Your task to perform on an android device: Open the stopwatch Image 0: 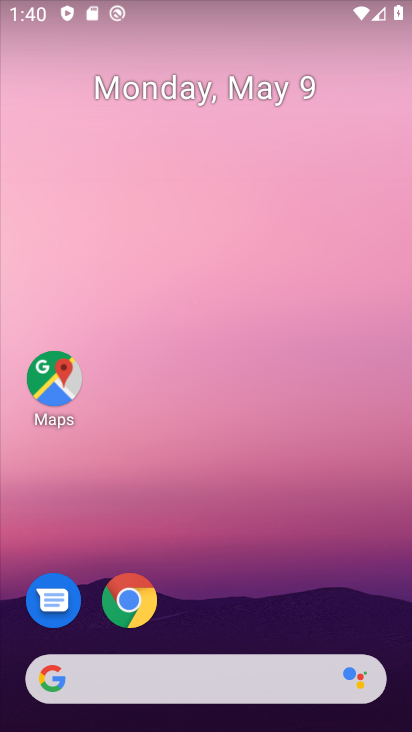
Step 0: drag from (256, 609) to (320, 5)
Your task to perform on an android device: Open the stopwatch Image 1: 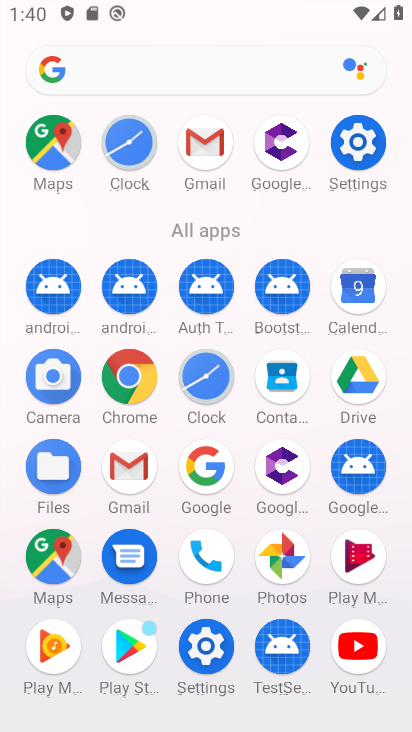
Step 1: click (215, 377)
Your task to perform on an android device: Open the stopwatch Image 2: 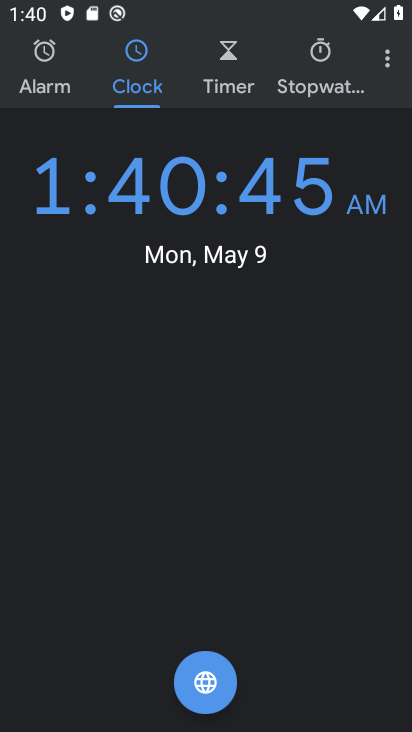
Step 2: click (344, 66)
Your task to perform on an android device: Open the stopwatch Image 3: 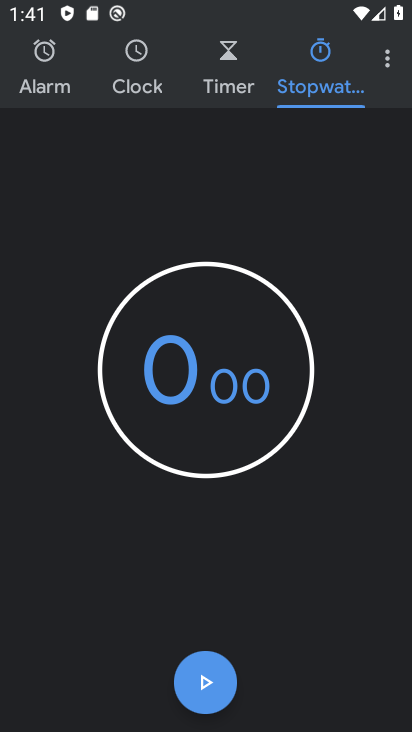
Step 3: task complete